Your task to perform on an android device: find snoozed emails in the gmail app Image 0: 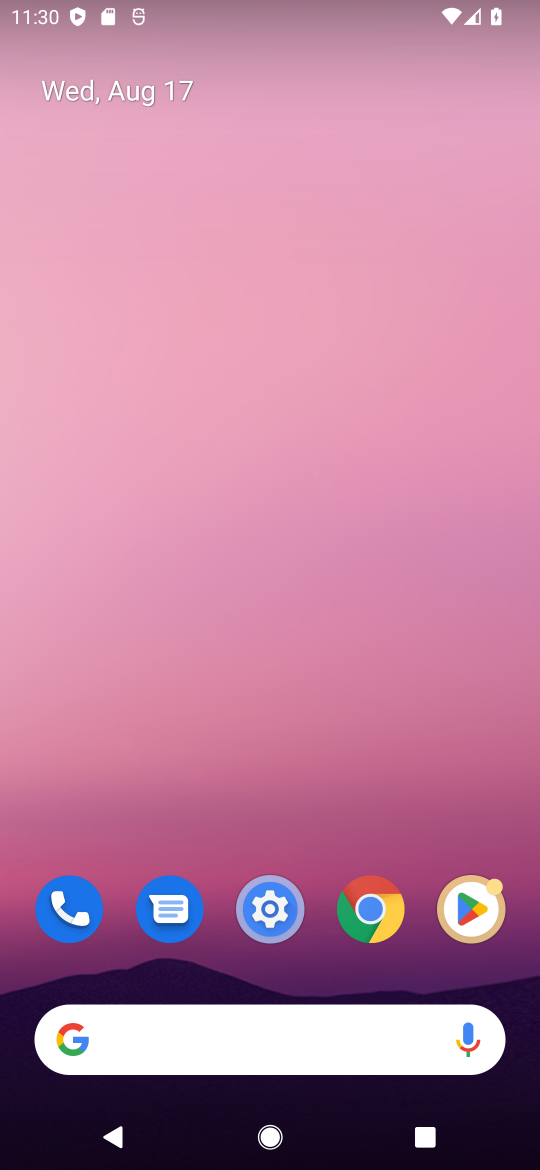
Step 0: drag from (262, 815) to (191, 170)
Your task to perform on an android device: find snoozed emails in the gmail app Image 1: 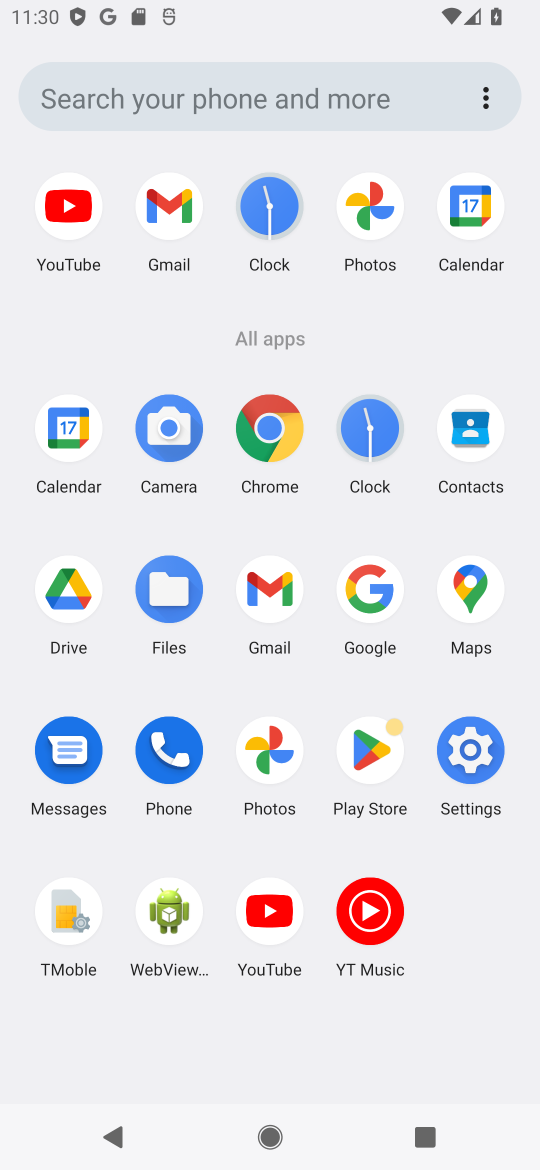
Step 1: click (267, 602)
Your task to perform on an android device: find snoozed emails in the gmail app Image 2: 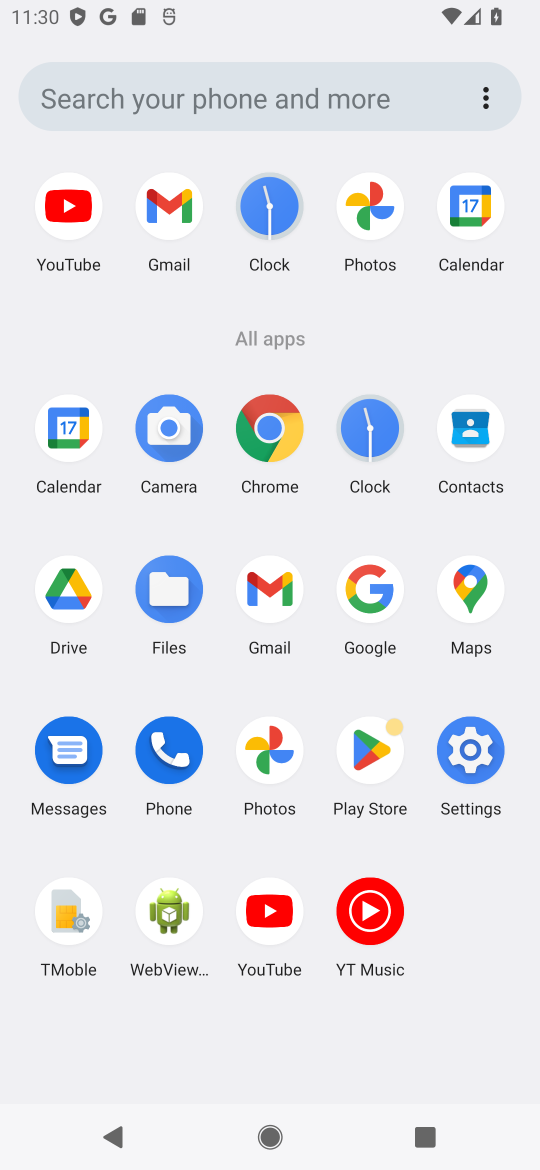
Step 2: click (278, 589)
Your task to perform on an android device: find snoozed emails in the gmail app Image 3: 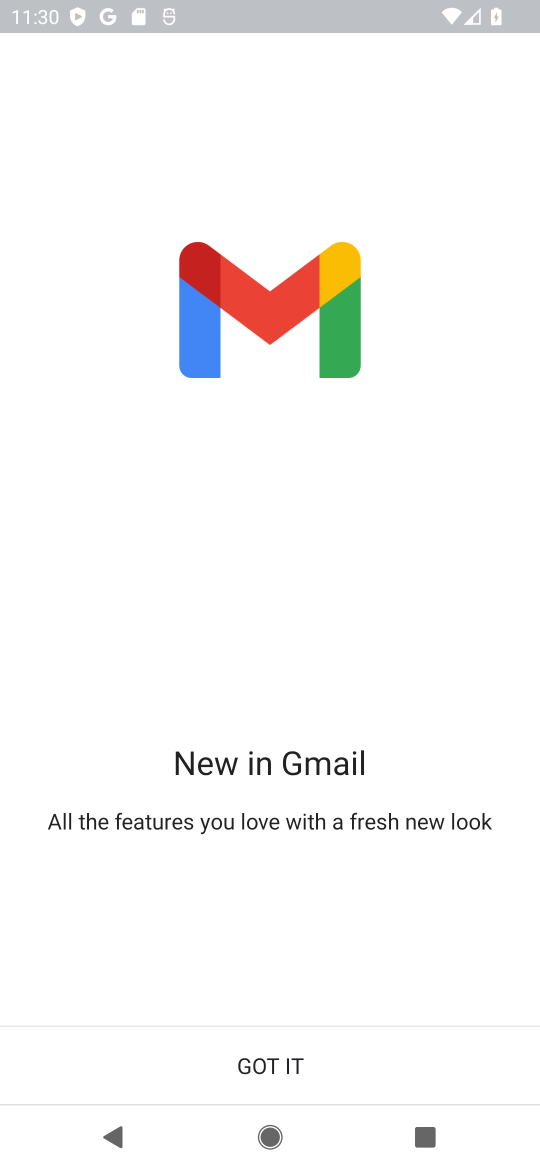
Step 3: click (255, 1055)
Your task to perform on an android device: find snoozed emails in the gmail app Image 4: 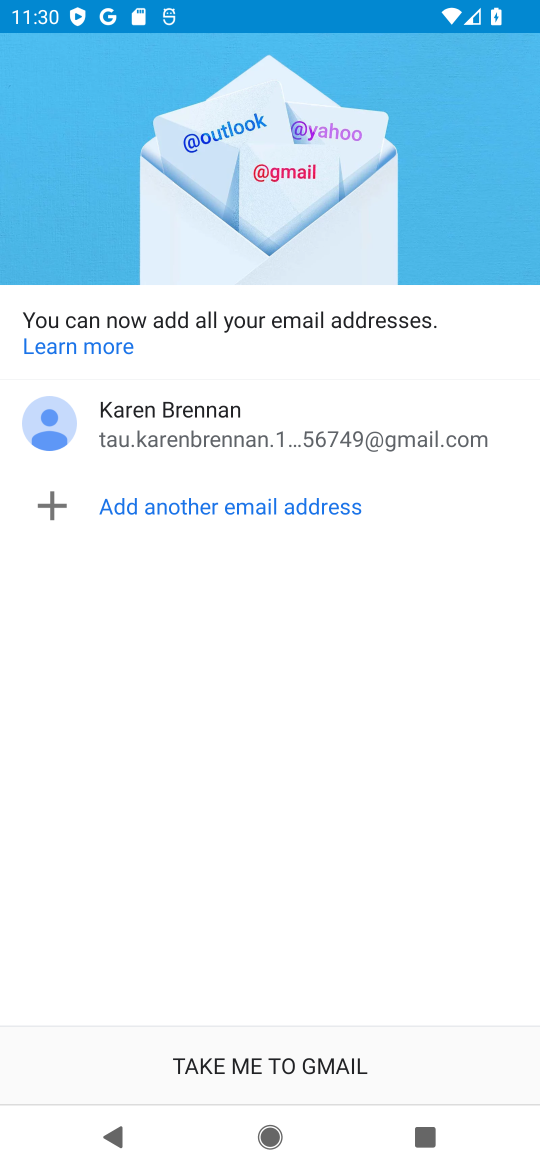
Step 4: click (255, 1055)
Your task to perform on an android device: find snoozed emails in the gmail app Image 5: 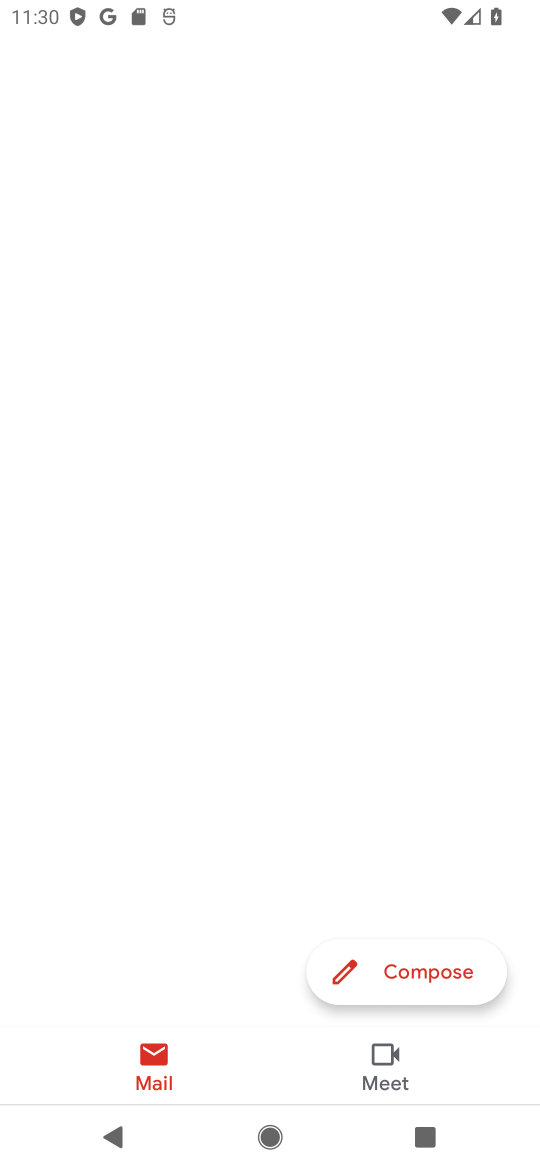
Step 5: click (255, 1055)
Your task to perform on an android device: find snoozed emails in the gmail app Image 6: 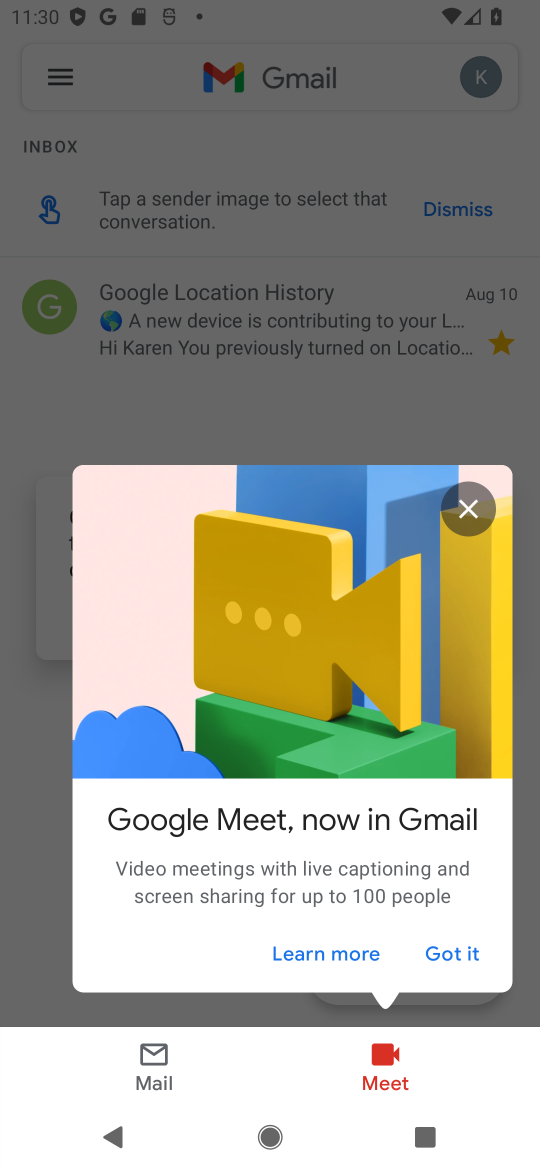
Step 6: click (467, 509)
Your task to perform on an android device: find snoozed emails in the gmail app Image 7: 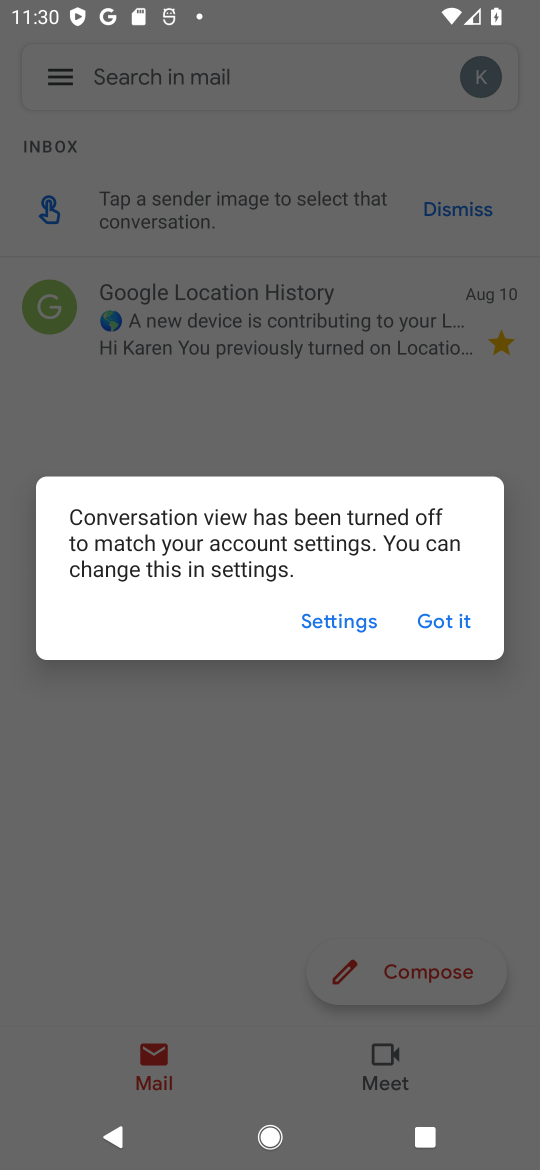
Step 7: click (461, 613)
Your task to perform on an android device: find snoozed emails in the gmail app Image 8: 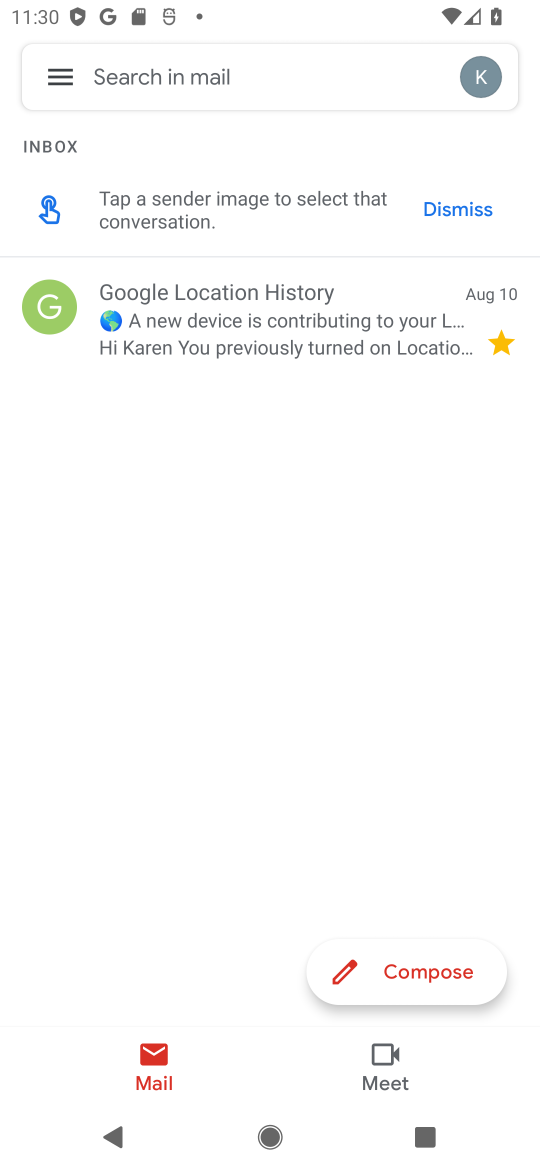
Step 8: click (60, 75)
Your task to perform on an android device: find snoozed emails in the gmail app Image 9: 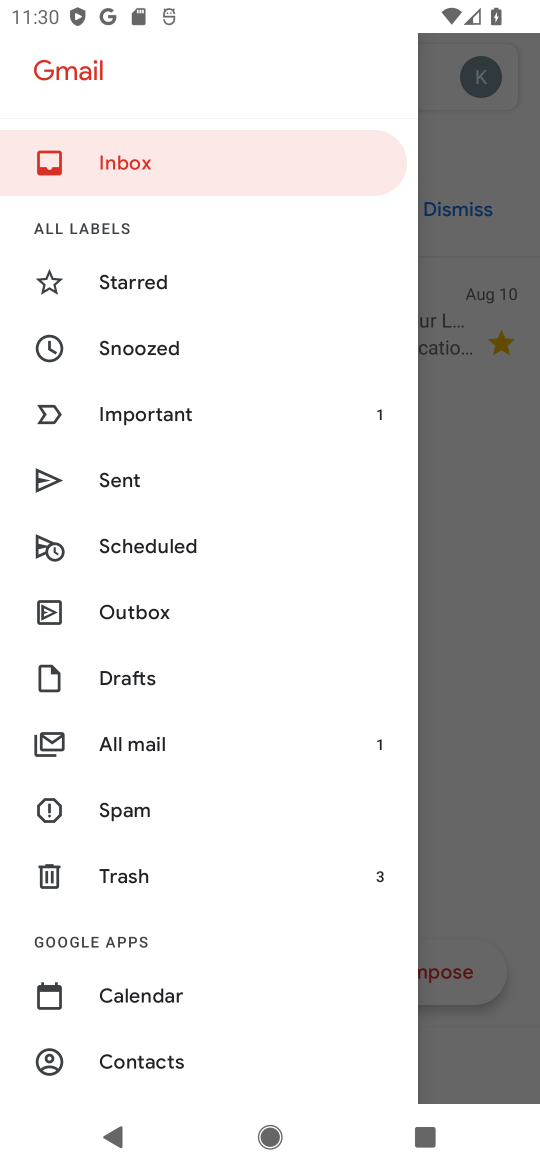
Step 9: click (154, 351)
Your task to perform on an android device: find snoozed emails in the gmail app Image 10: 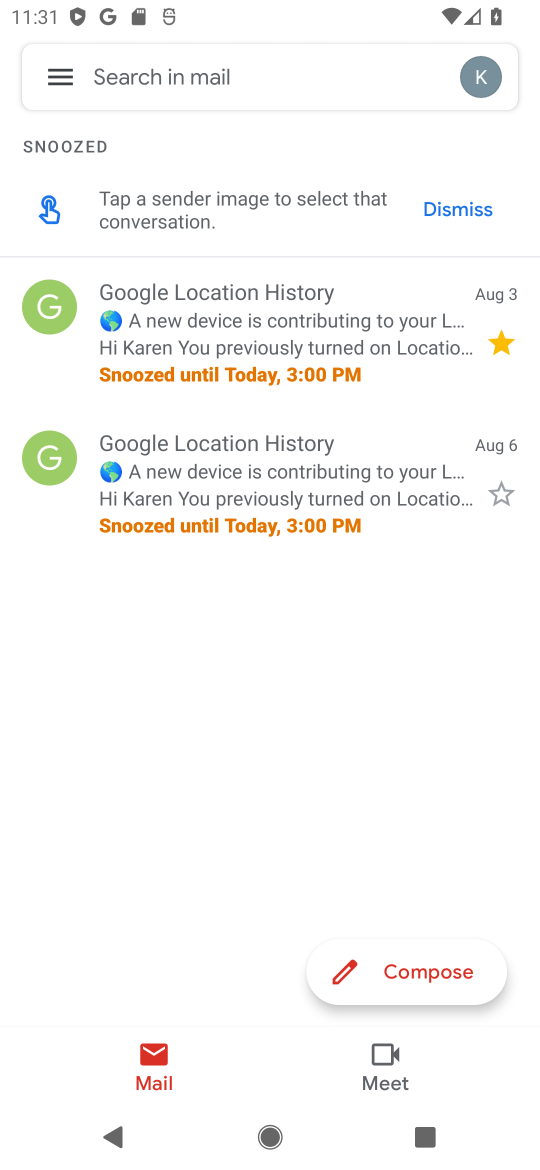
Step 10: task complete